Your task to perform on an android device: Check the weather Image 0: 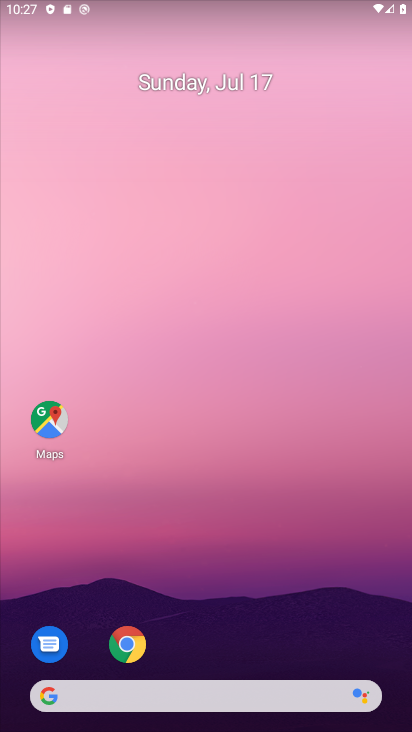
Step 0: drag from (213, 541) to (397, 112)
Your task to perform on an android device: Check the weather Image 1: 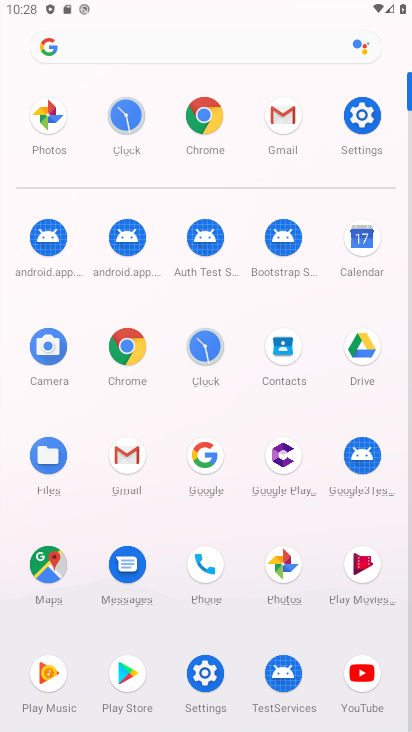
Step 1: click (208, 467)
Your task to perform on an android device: Check the weather Image 2: 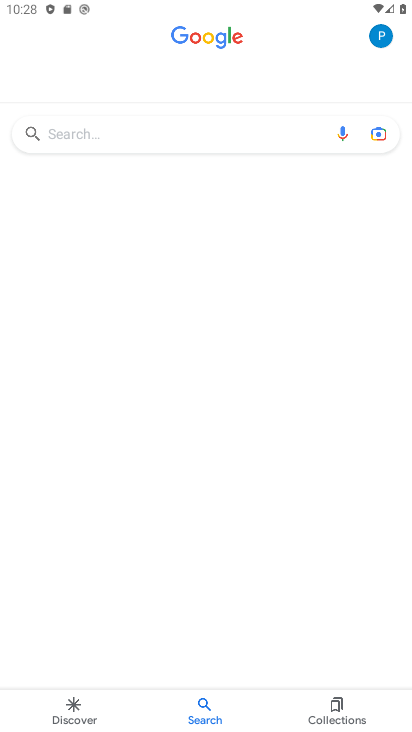
Step 2: click (95, 130)
Your task to perform on an android device: Check the weather Image 3: 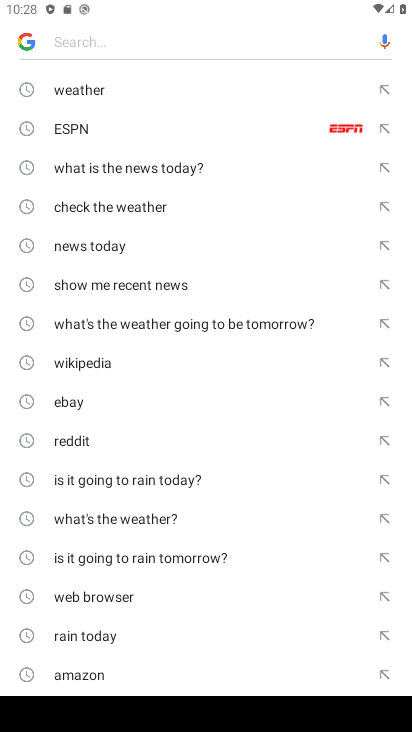
Step 3: click (62, 78)
Your task to perform on an android device: Check the weather Image 4: 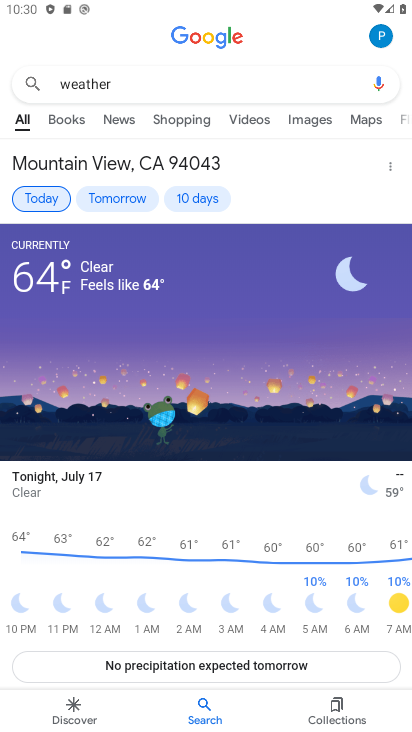
Step 4: task complete